Your task to perform on an android device: Turn on the flashlight Image 0: 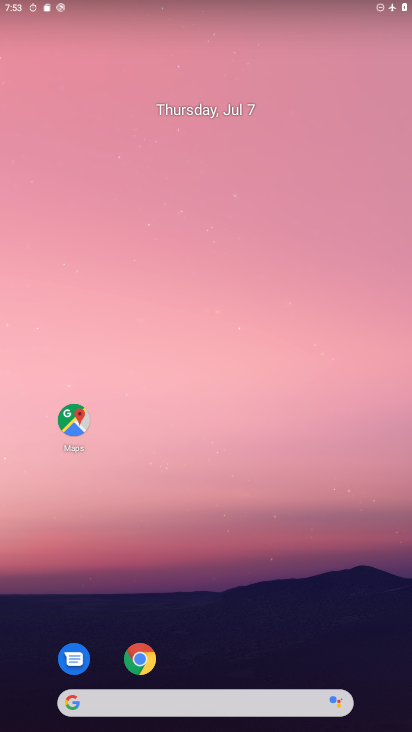
Step 0: drag from (364, 662) to (223, 32)
Your task to perform on an android device: Turn on the flashlight Image 1: 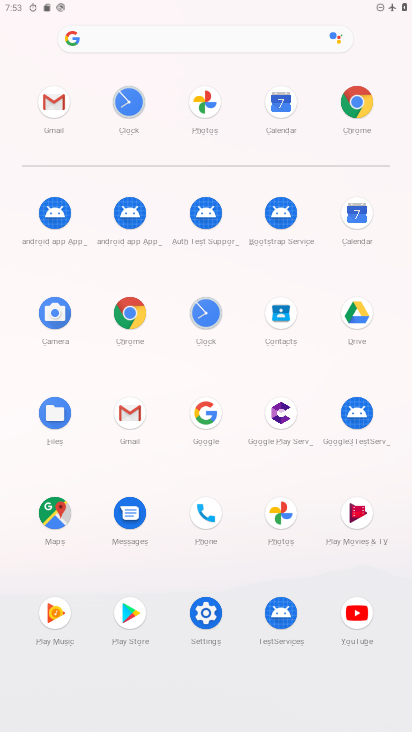
Step 1: click (205, 612)
Your task to perform on an android device: Turn on the flashlight Image 2: 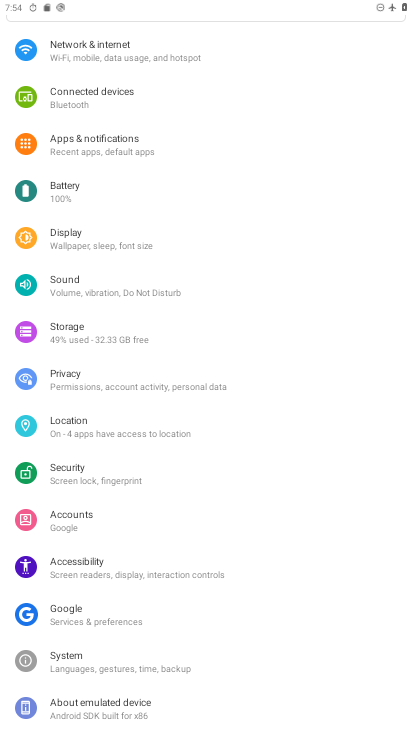
Step 2: task complete